Your task to perform on an android device: change the clock display to digital Image 0: 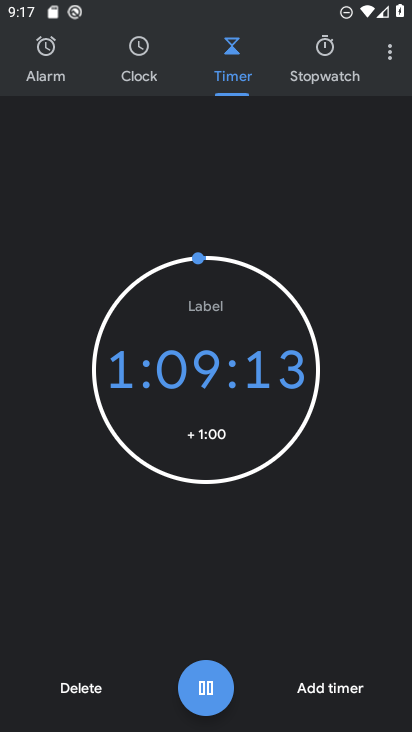
Step 0: press home button
Your task to perform on an android device: change the clock display to digital Image 1: 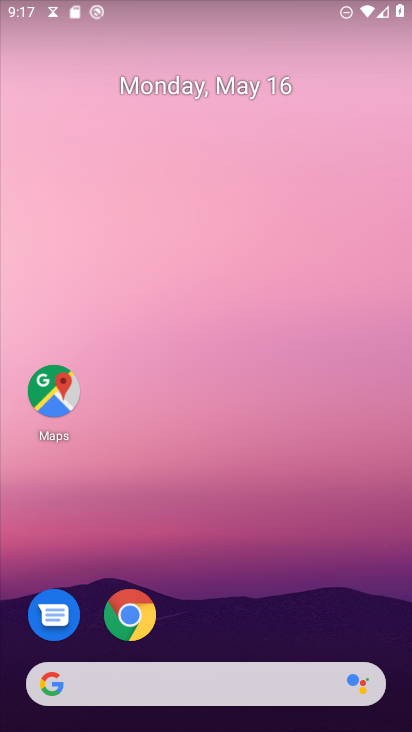
Step 1: drag from (73, 469) to (251, 135)
Your task to perform on an android device: change the clock display to digital Image 2: 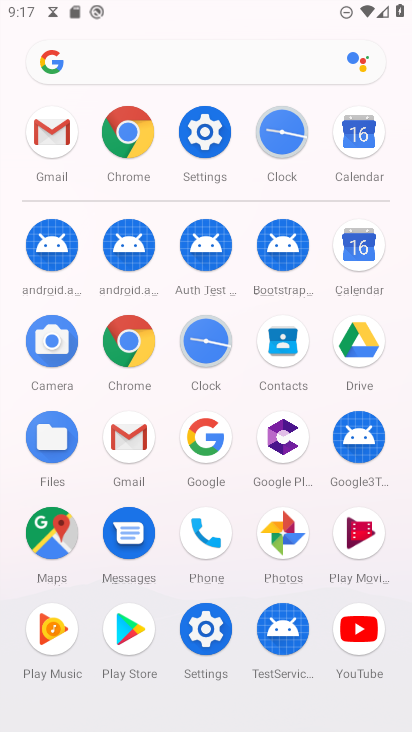
Step 2: click (204, 347)
Your task to perform on an android device: change the clock display to digital Image 3: 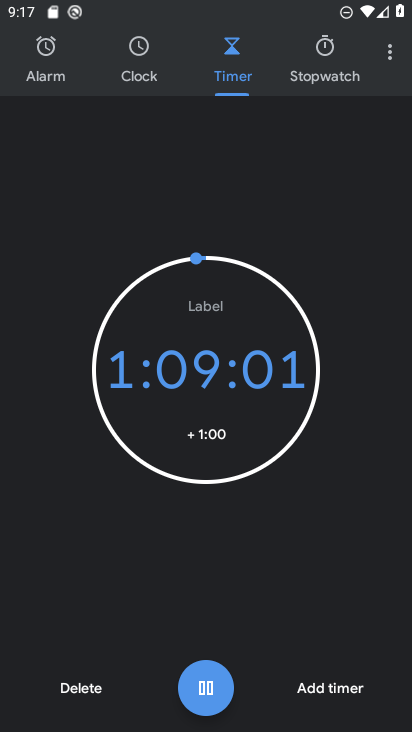
Step 3: click (399, 58)
Your task to perform on an android device: change the clock display to digital Image 4: 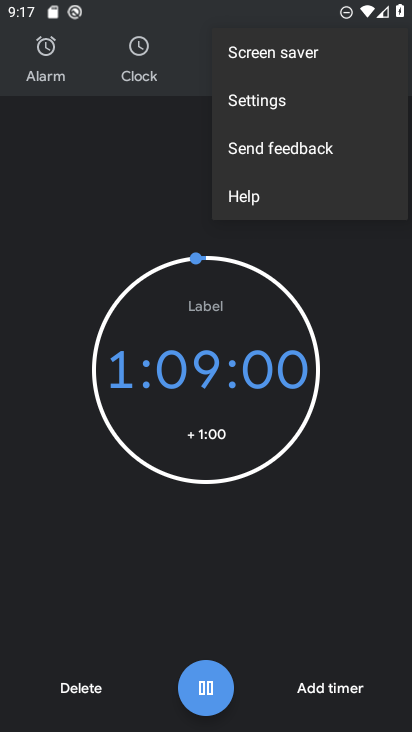
Step 4: click (292, 106)
Your task to perform on an android device: change the clock display to digital Image 5: 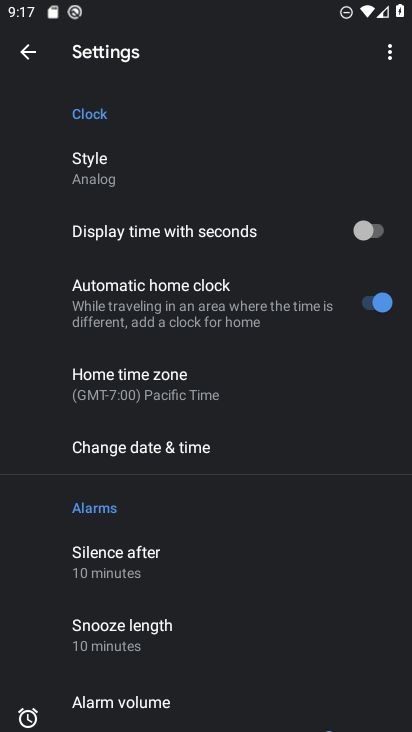
Step 5: click (153, 167)
Your task to perform on an android device: change the clock display to digital Image 6: 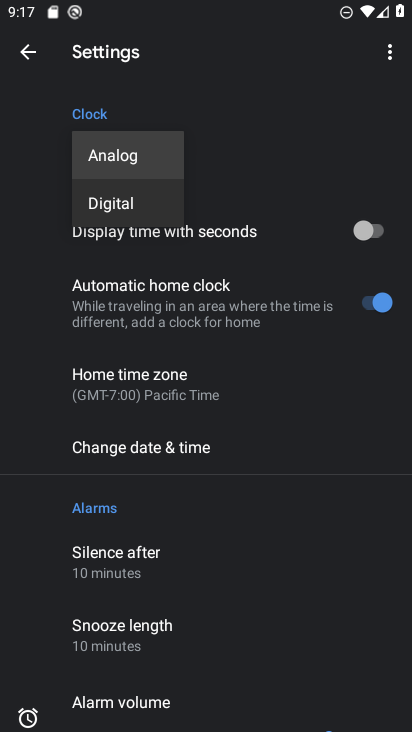
Step 6: click (115, 205)
Your task to perform on an android device: change the clock display to digital Image 7: 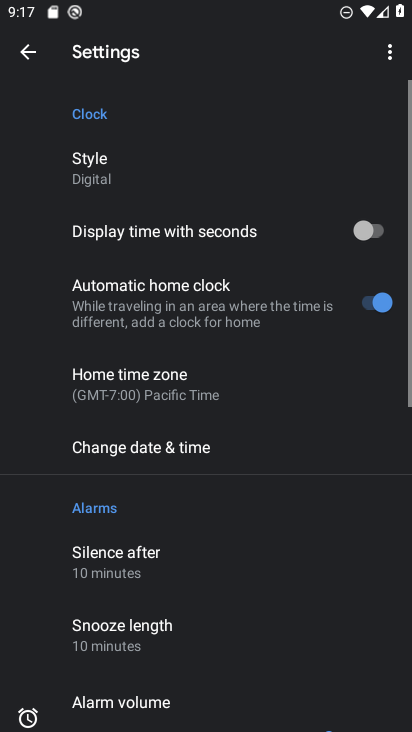
Step 7: task complete